Your task to perform on an android device: delete the emails in spam in the gmail app Image 0: 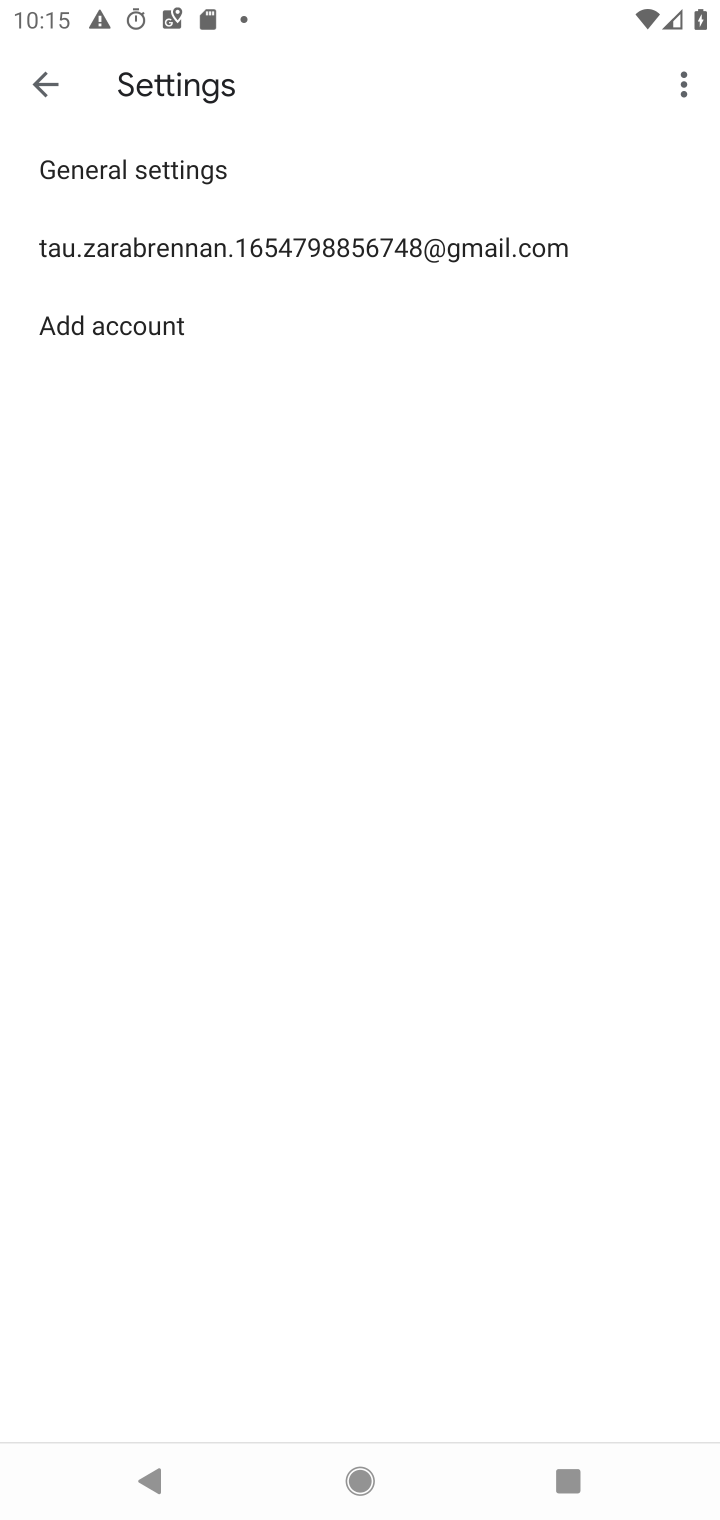
Step 0: click (37, 92)
Your task to perform on an android device: delete the emails in spam in the gmail app Image 1: 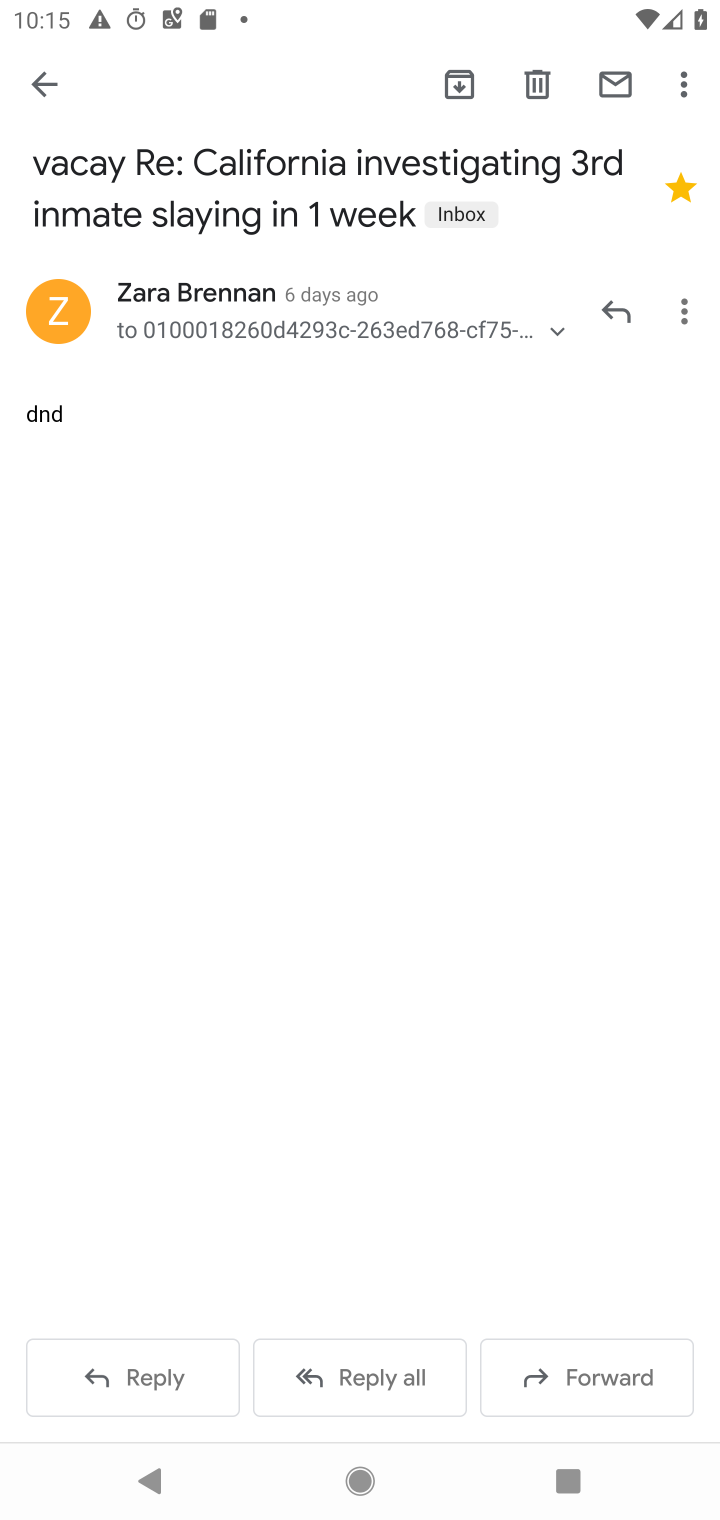
Step 1: click (57, 110)
Your task to perform on an android device: delete the emails in spam in the gmail app Image 2: 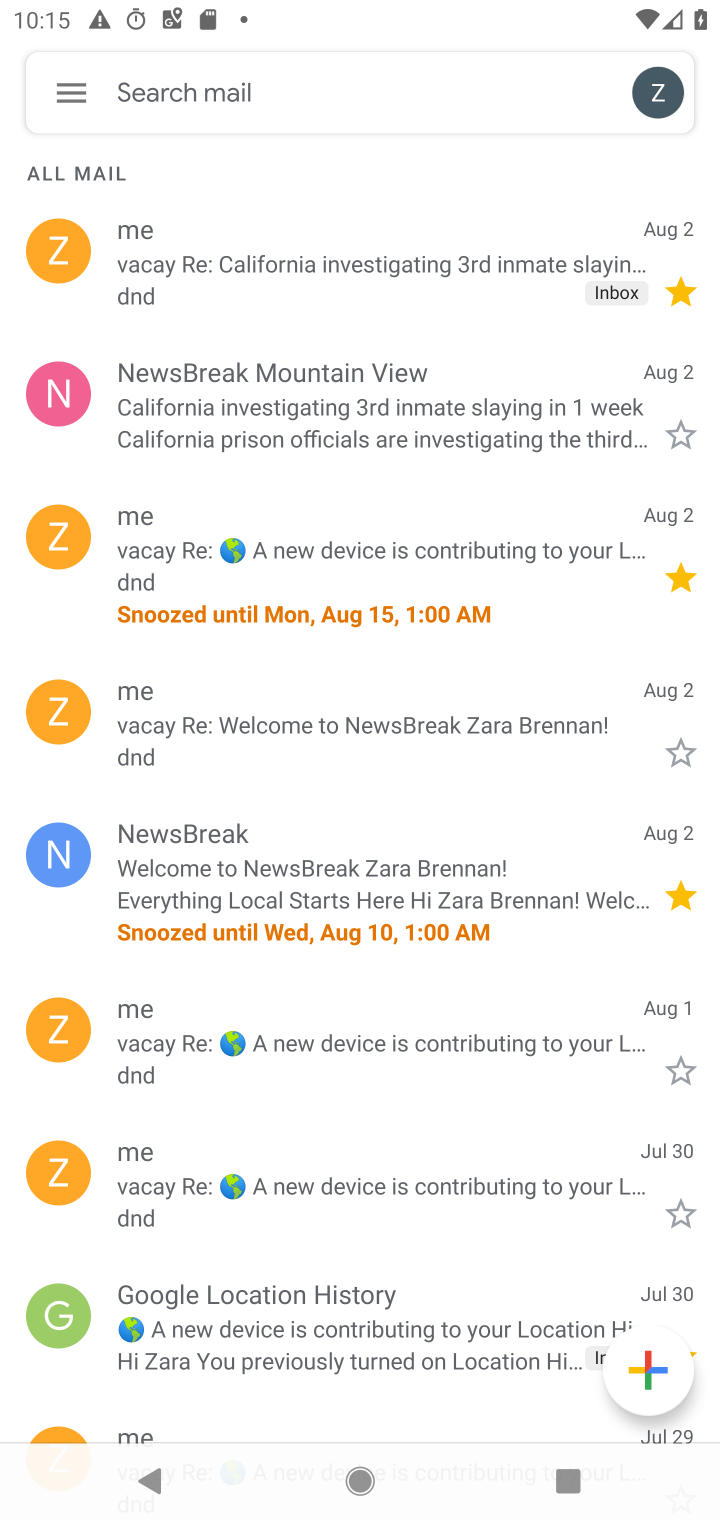
Step 2: click (65, 107)
Your task to perform on an android device: delete the emails in spam in the gmail app Image 3: 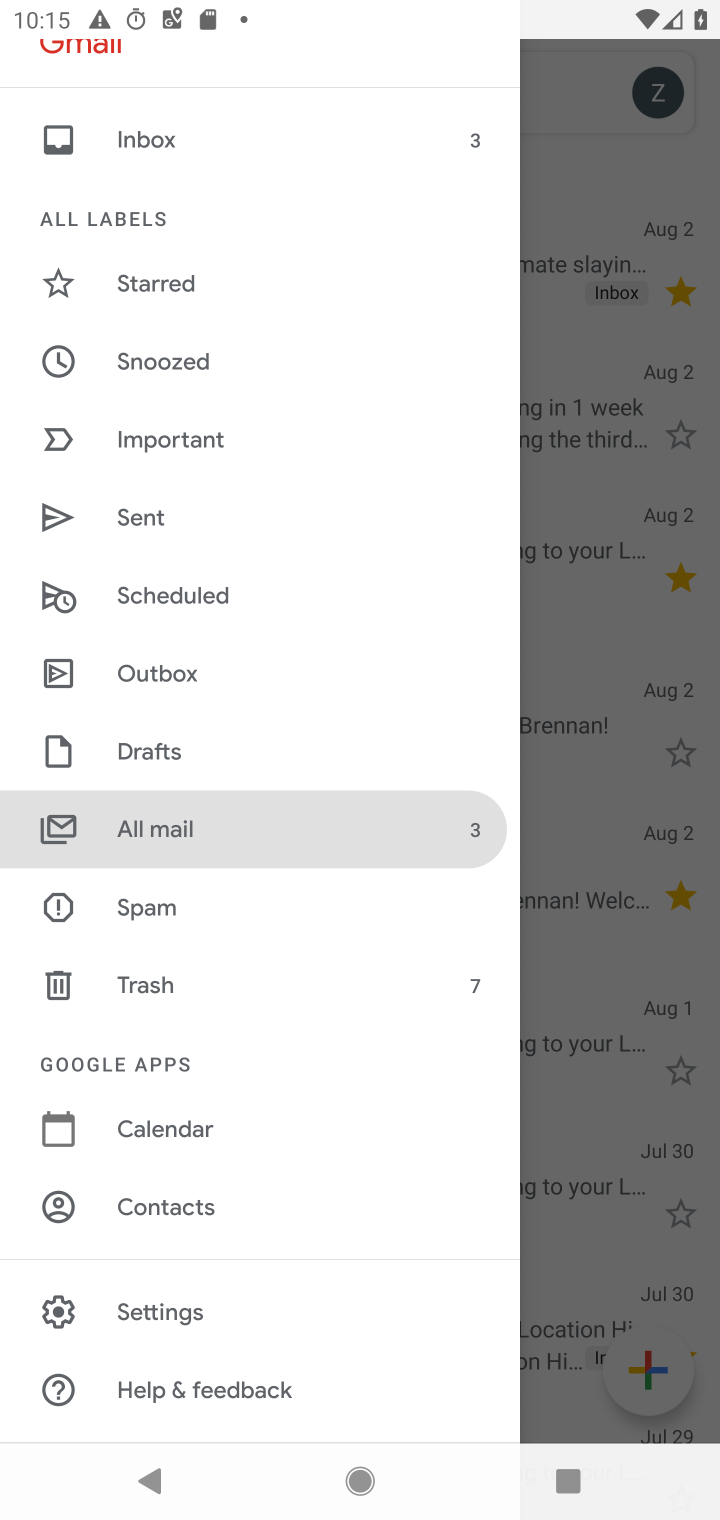
Step 3: click (143, 912)
Your task to perform on an android device: delete the emails in spam in the gmail app Image 4: 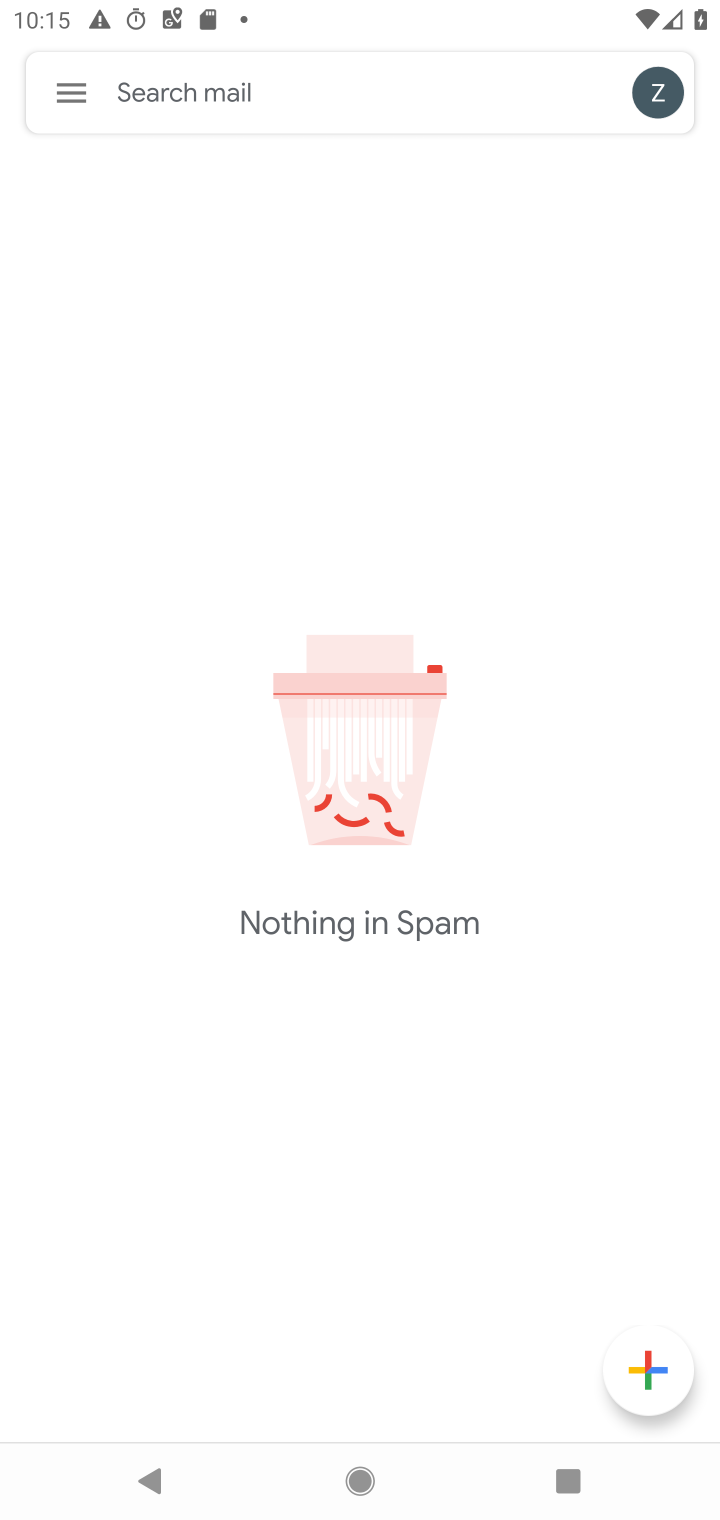
Step 4: task complete